Your task to perform on an android device: Add corsair k70 to the cart on ebay.com Image 0: 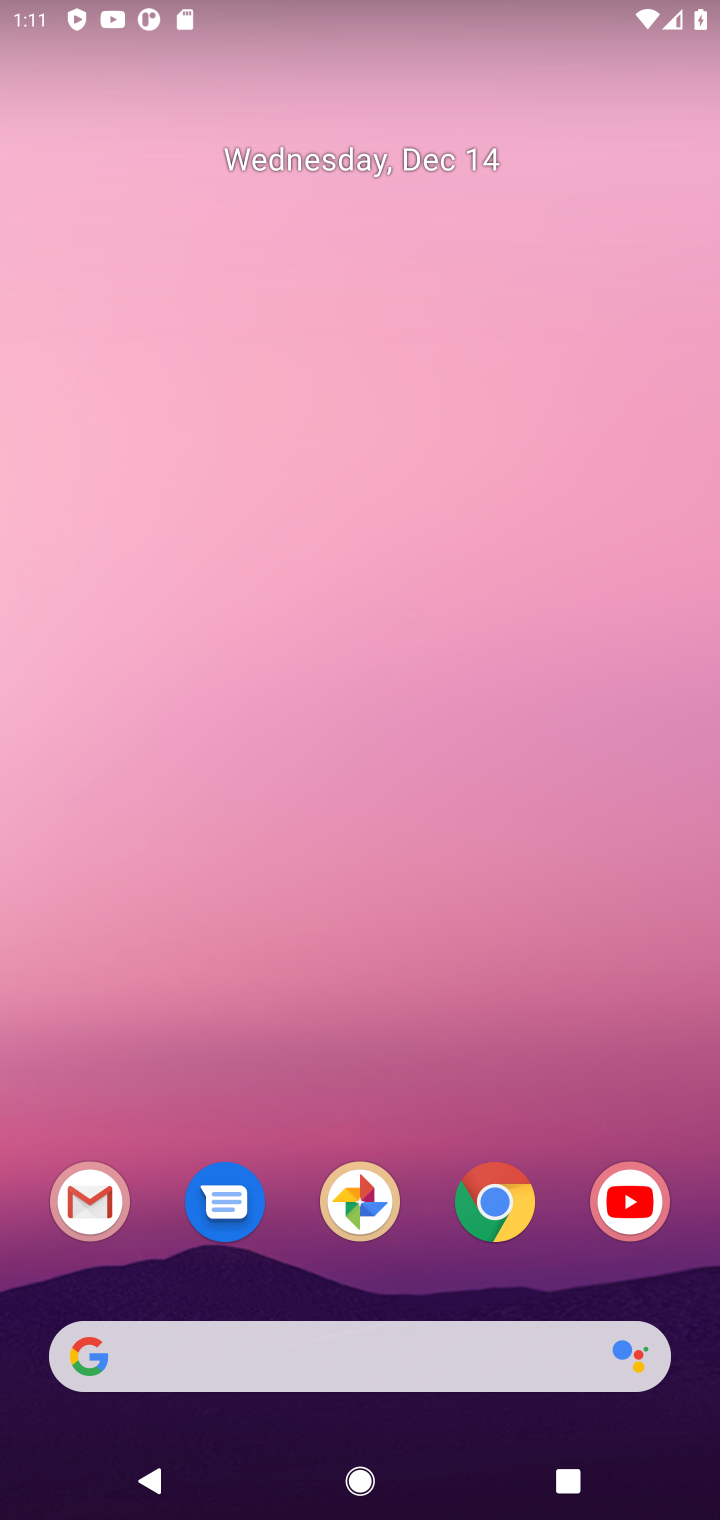
Step 0: click (498, 1184)
Your task to perform on an android device: Add corsair k70 to the cart on ebay.com Image 1: 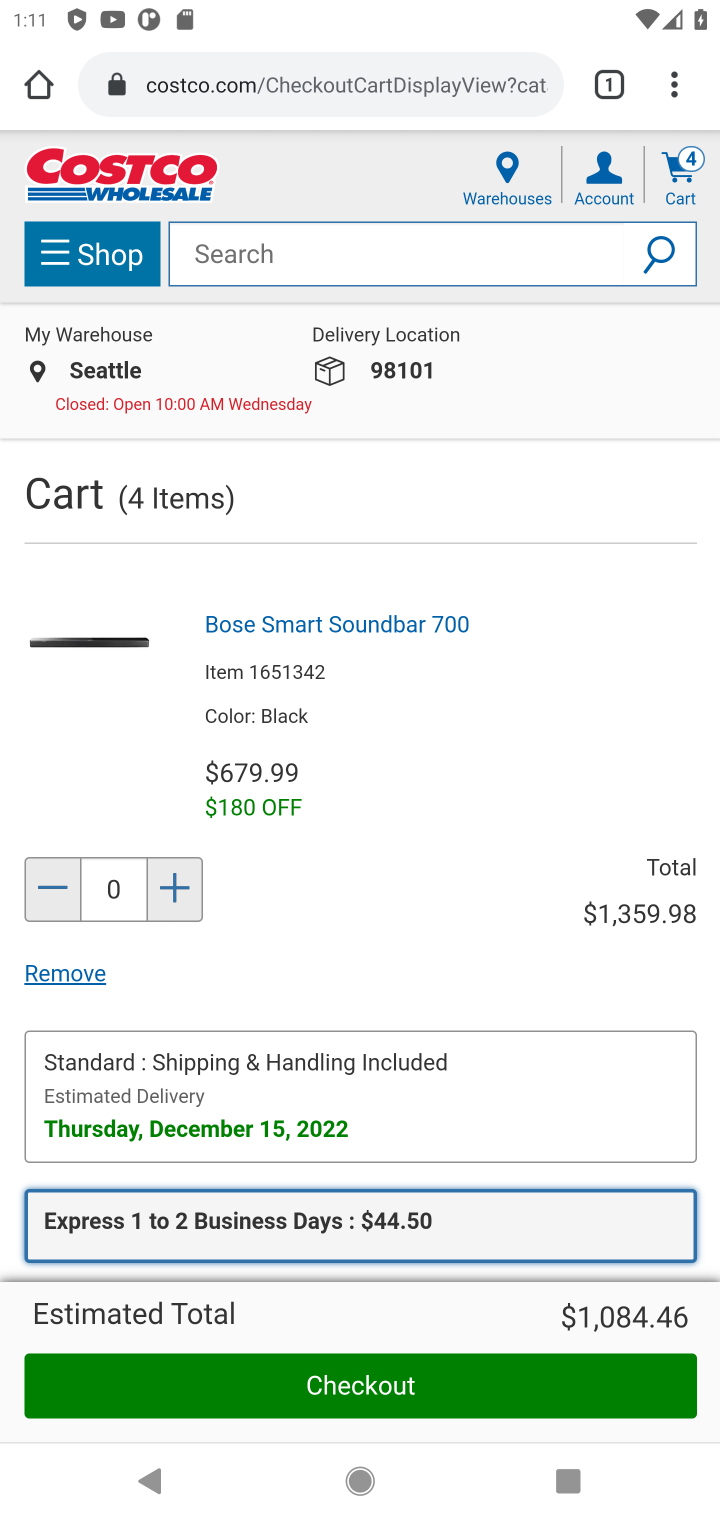
Step 1: click (329, 82)
Your task to perform on an android device: Add corsair k70 to the cart on ebay.com Image 2: 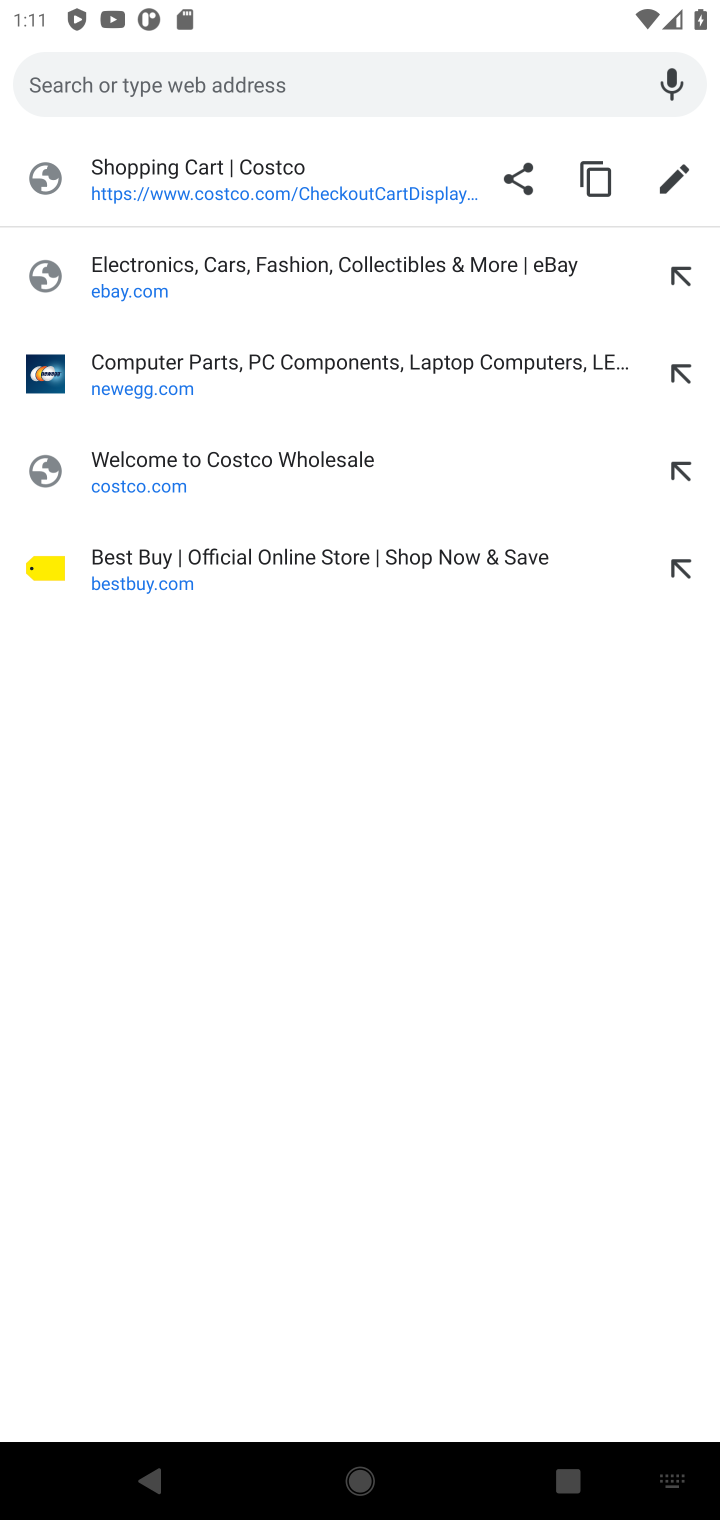
Step 2: type "EBAY"
Your task to perform on an android device: Add corsair k70 to the cart on ebay.com Image 3: 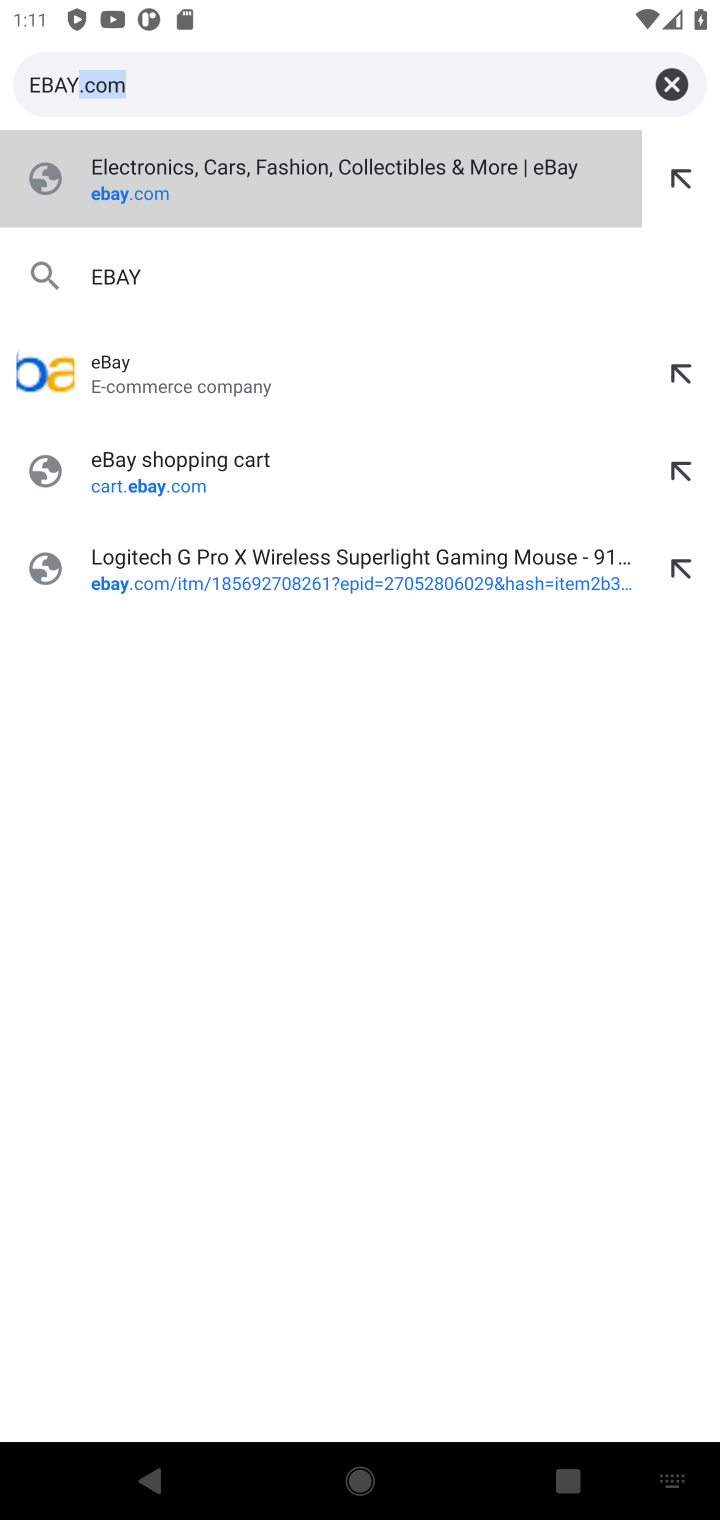
Step 3: click (557, 188)
Your task to perform on an android device: Add corsair k70 to the cart on ebay.com Image 4: 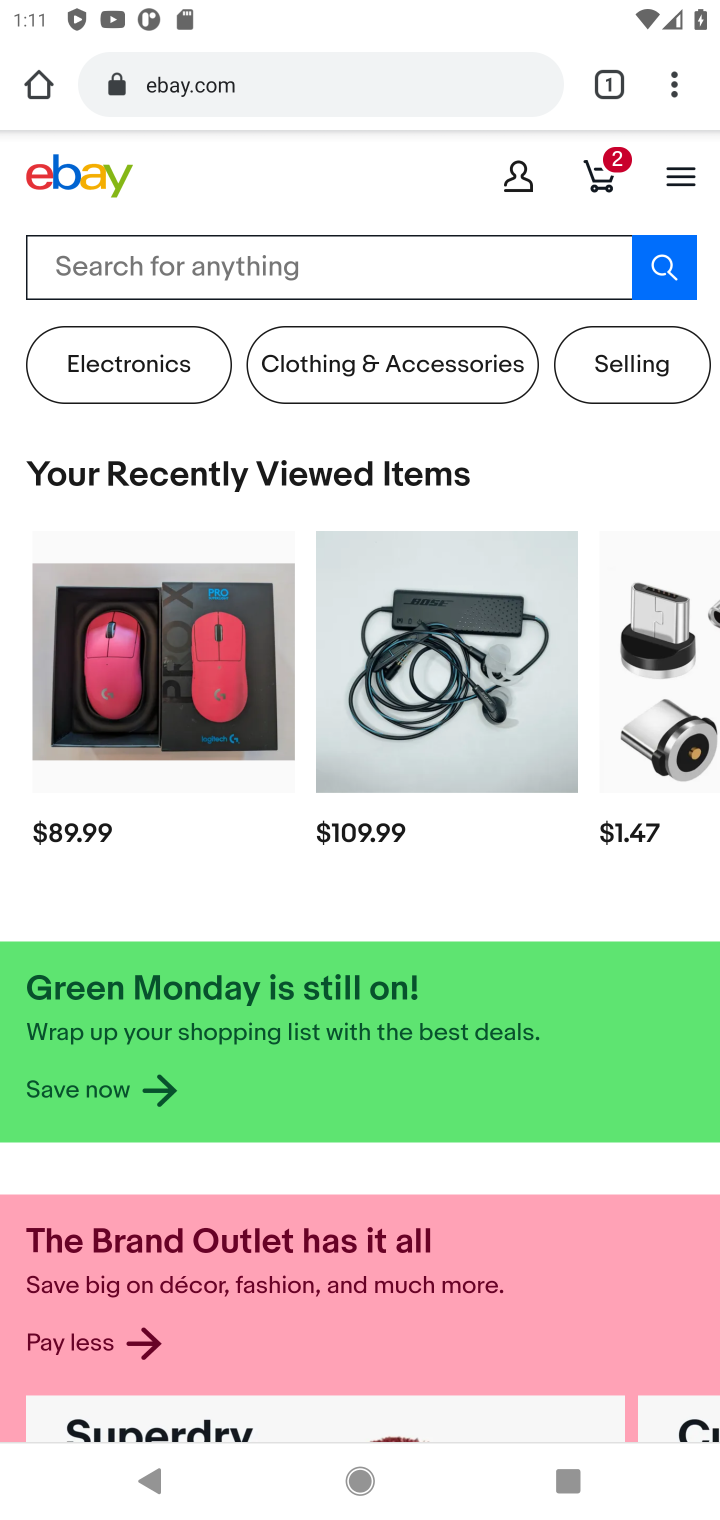
Step 4: click (438, 275)
Your task to perform on an android device: Add corsair k70 to the cart on ebay.com Image 5: 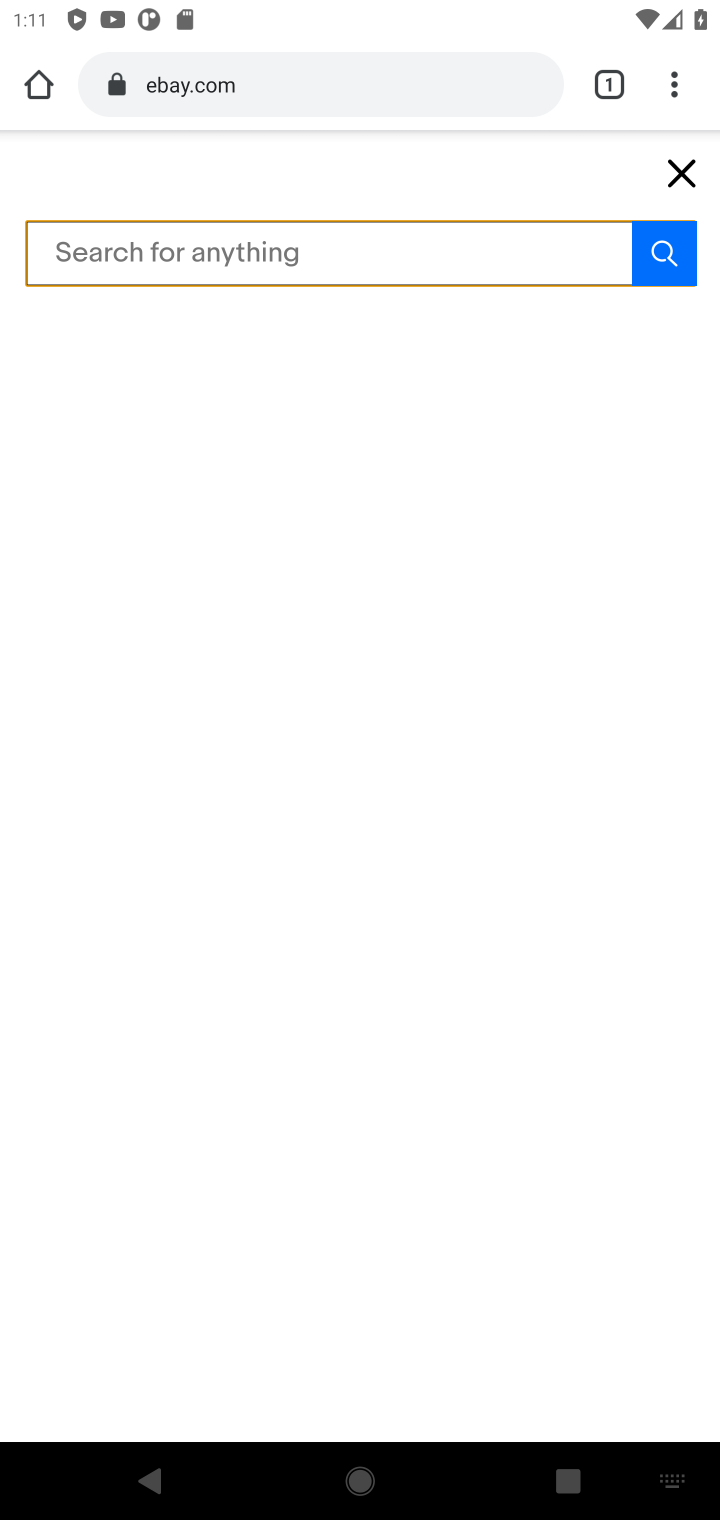
Step 5: type "CORSAIR K70"
Your task to perform on an android device: Add corsair k70 to the cart on ebay.com Image 6: 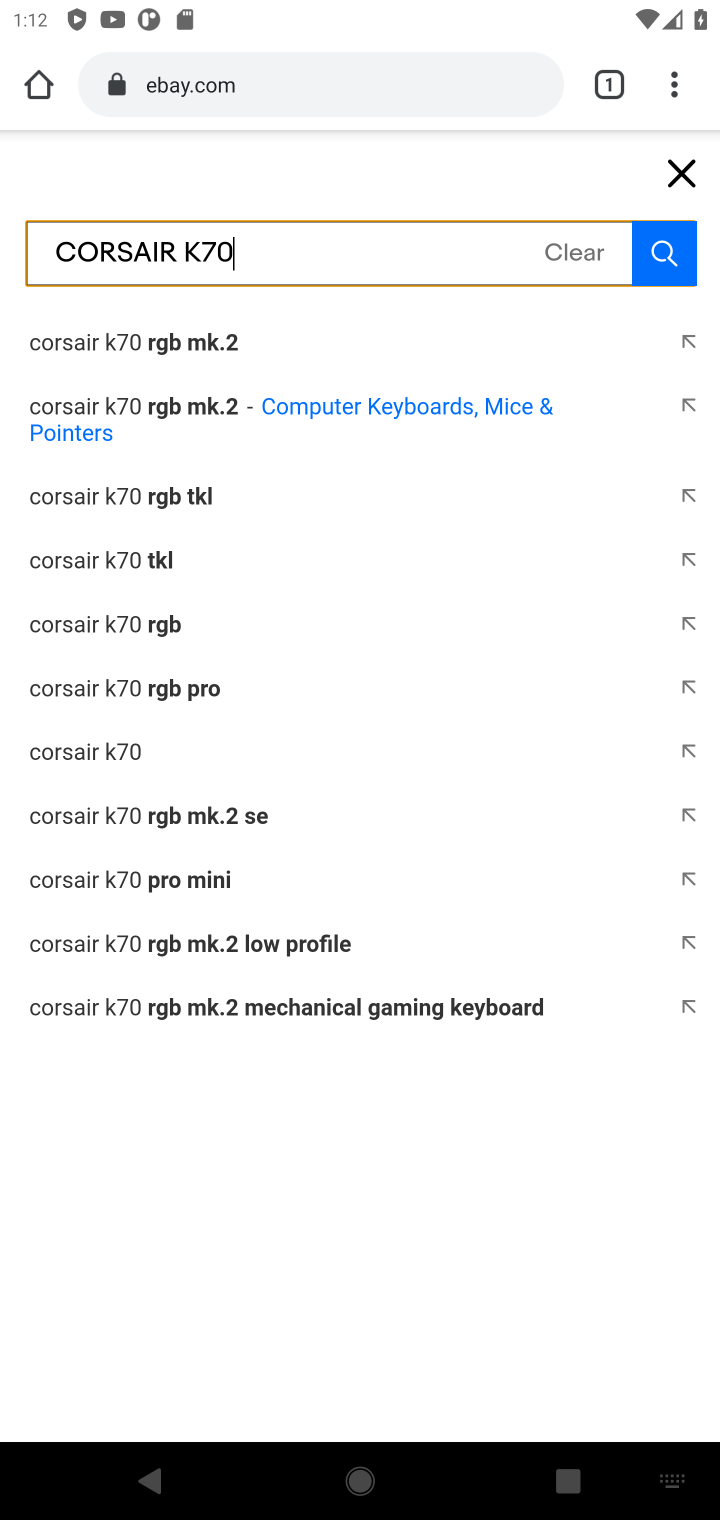
Step 6: click (138, 343)
Your task to perform on an android device: Add corsair k70 to the cart on ebay.com Image 7: 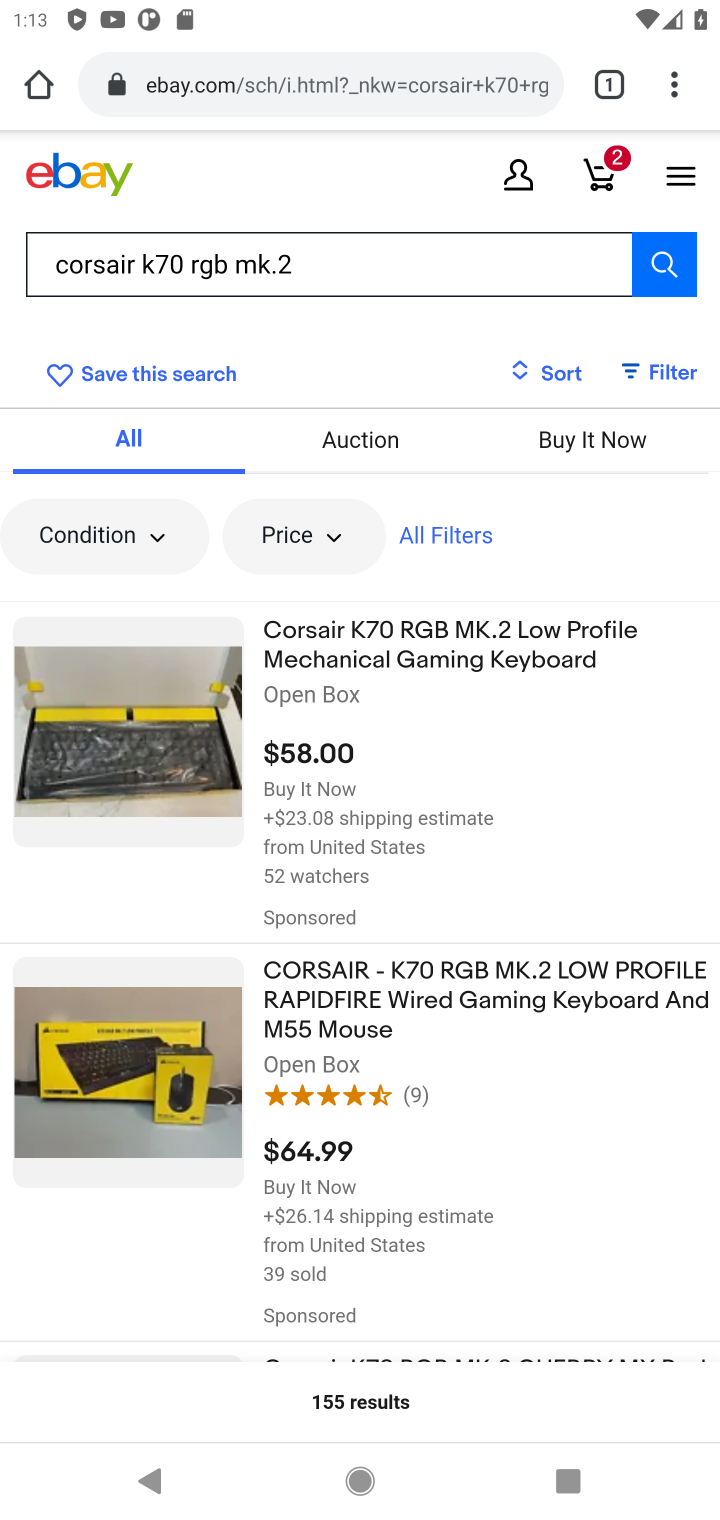
Step 7: click (453, 711)
Your task to perform on an android device: Add corsair k70 to the cart on ebay.com Image 8: 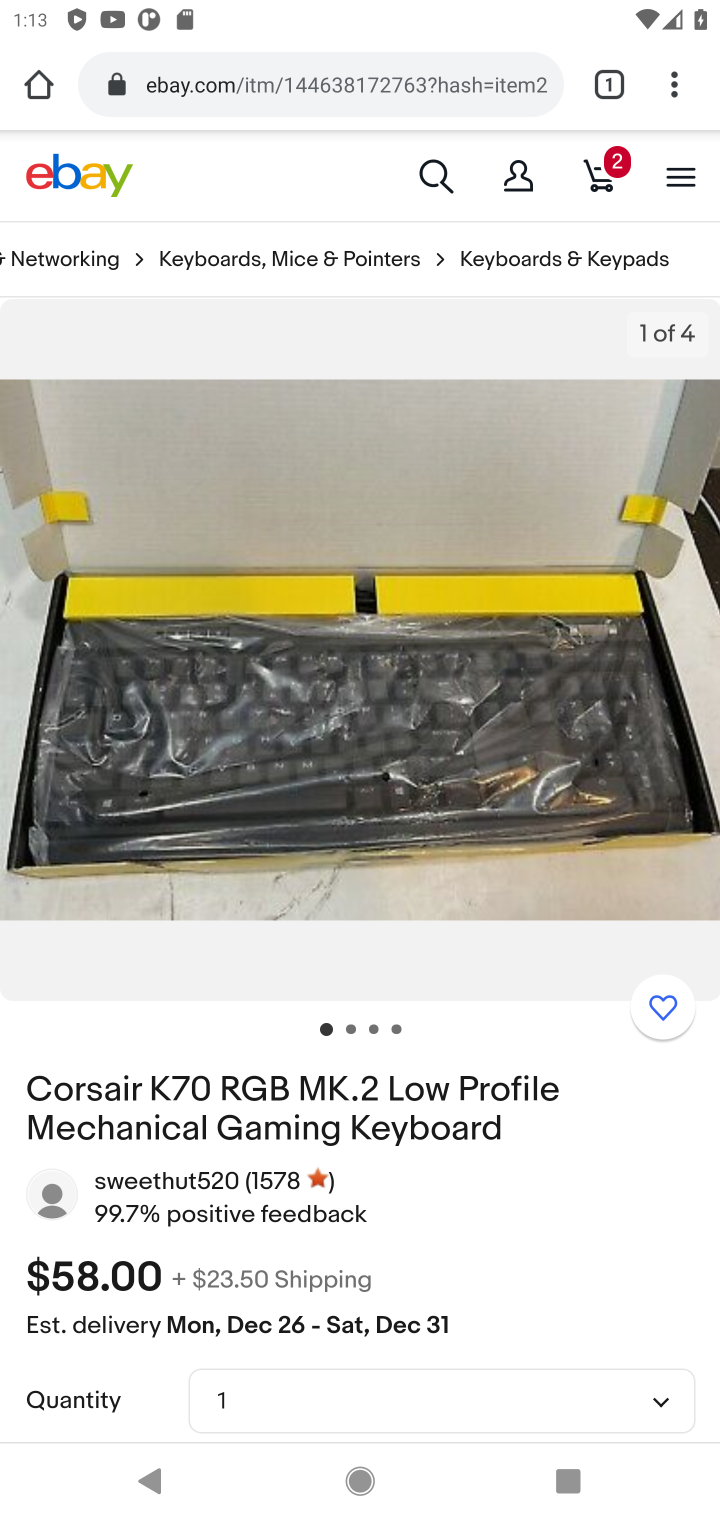
Step 8: drag from (541, 1265) to (404, 499)
Your task to perform on an android device: Add corsair k70 to the cart on ebay.com Image 9: 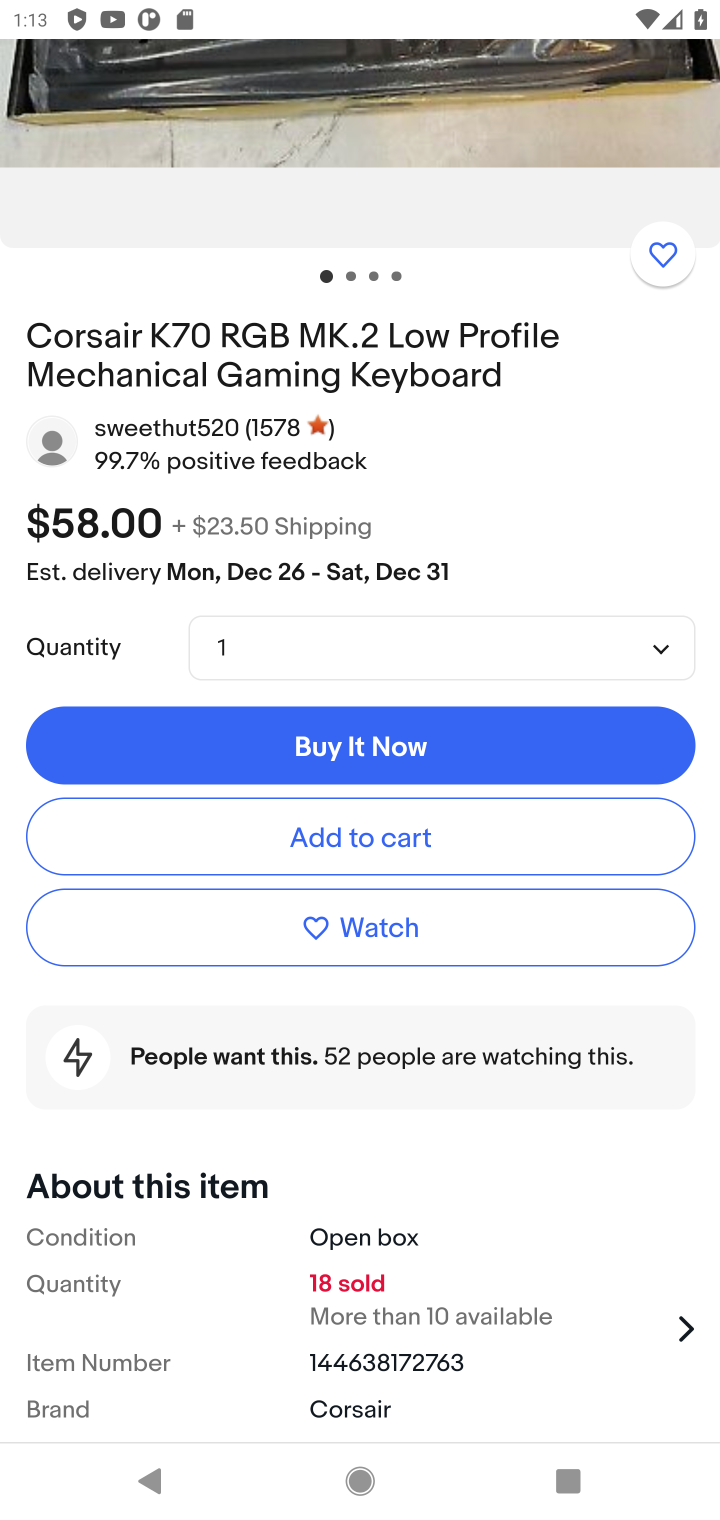
Step 9: click (373, 946)
Your task to perform on an android device: Add corsair k70 to the cart on ebay.com Image 10: 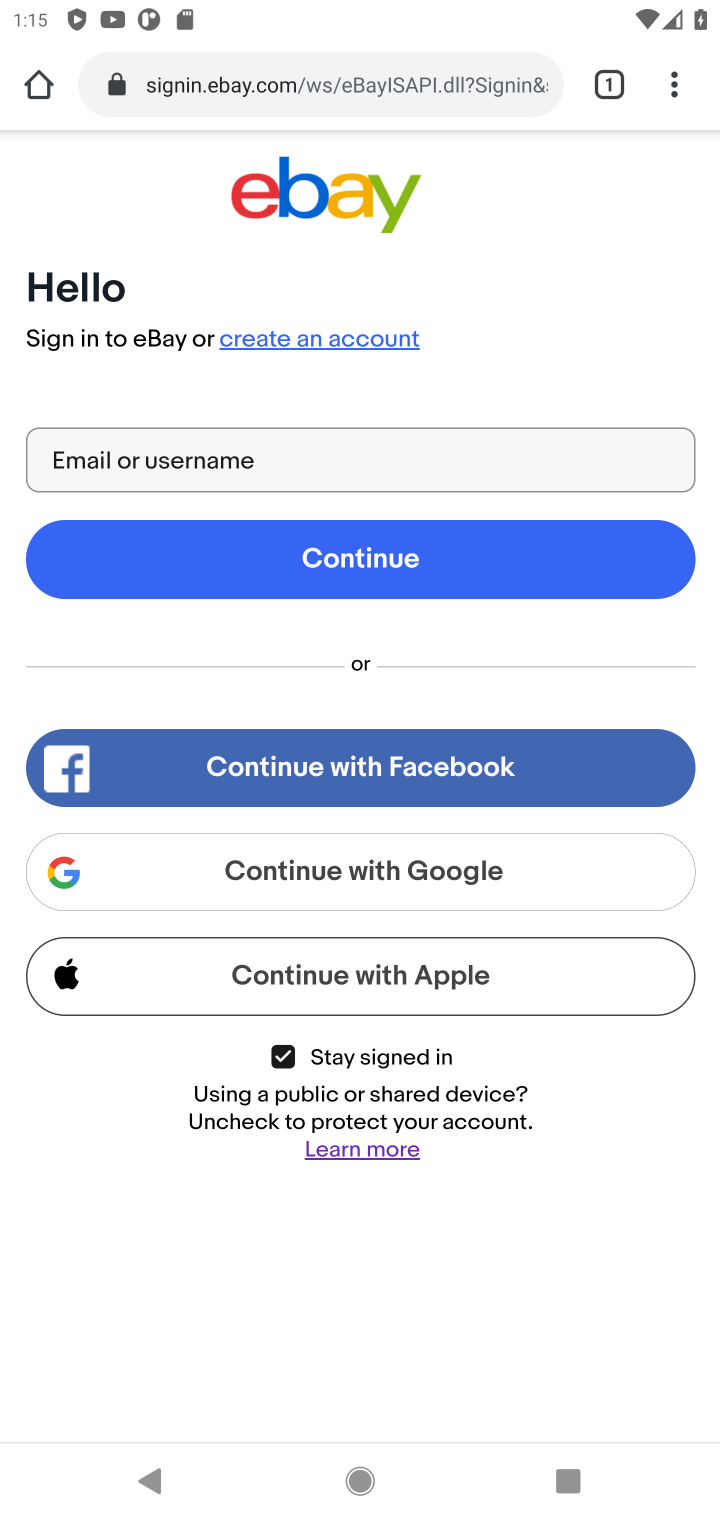
Step 10: task complete